Your task to perform on an android device: Show me popular videos on Youtube Image 0: 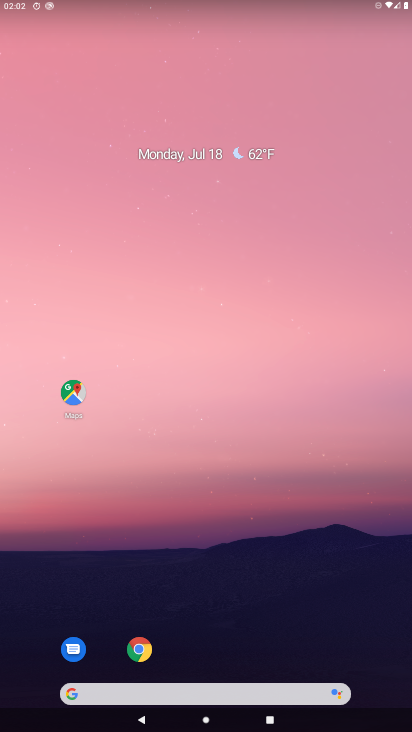
Step 0: drag from (40, 660) to (242, 3)
Your task to perform on an android device: Show me popular videos on Youtube Image 1: 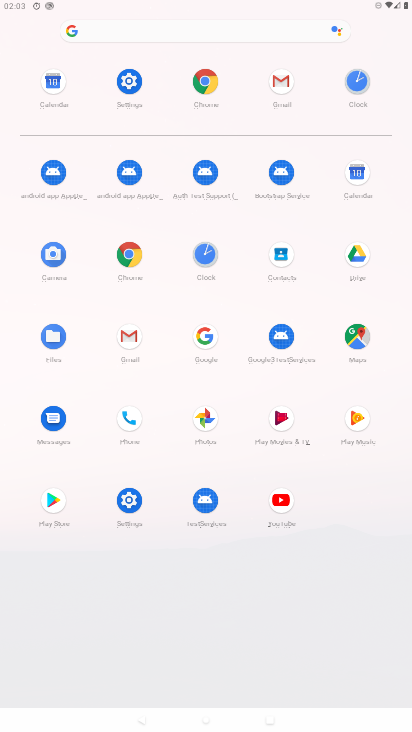
Step 1: click (292, 516)
Your task to perform on an android device: Show me popular videos on Youtube Image 2: 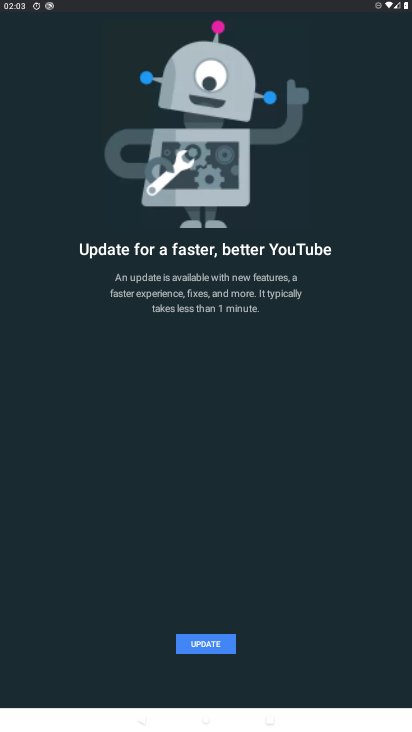
Step 2: click (227, 645)
Your task to perform on an android device: Show me popular videos on Youtube Image 3: 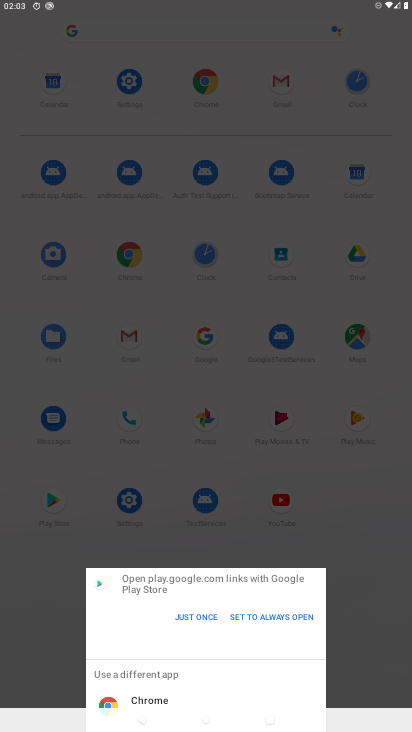
Step 3: click (204, 607)
Your task to perform on an android device: Show me popular videos on Youtube Image 4: 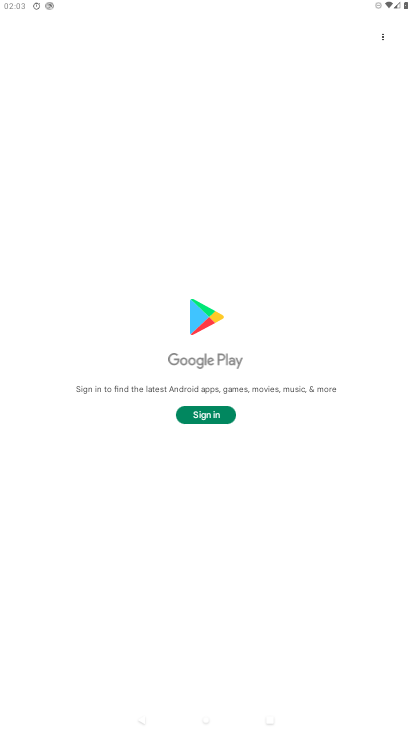
Step 4: task complete